Your task to perform on an android device: Open Maps and search for coffee Image 0: 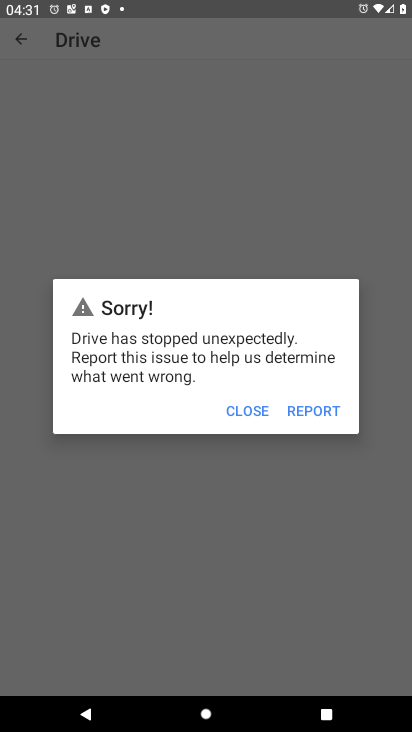
Step 0: press home button
Your task to perform on an android device: Open Maps and search for coffee Image 1: 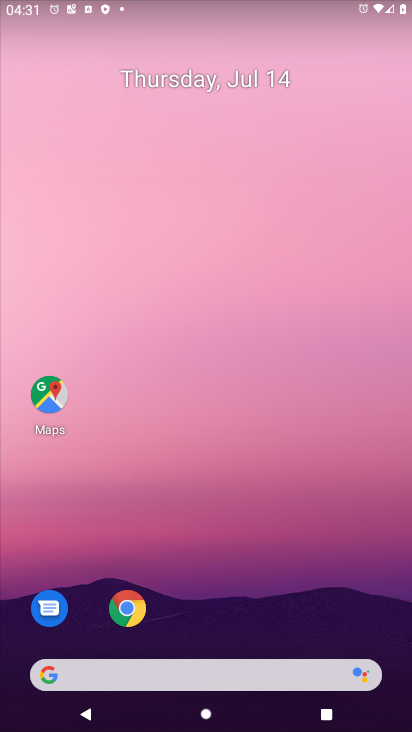
Step 1: click (48, 391)
Your task to perform on an android device: Open Maps and search for coffee Image 2: 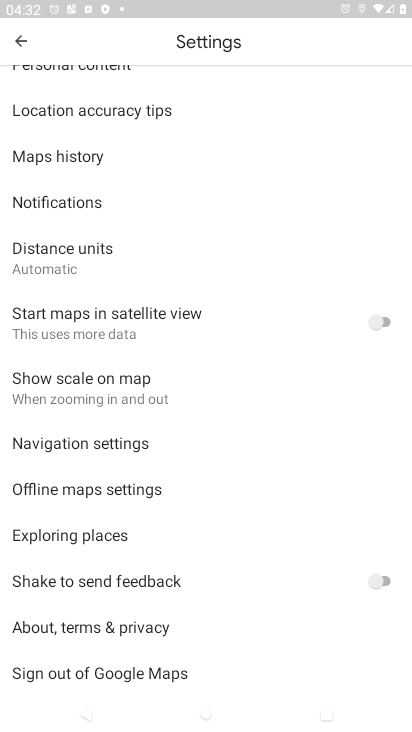
Step 2: press back button
Your task to perform on an android device: Open Maps and search for coffee Image 3: 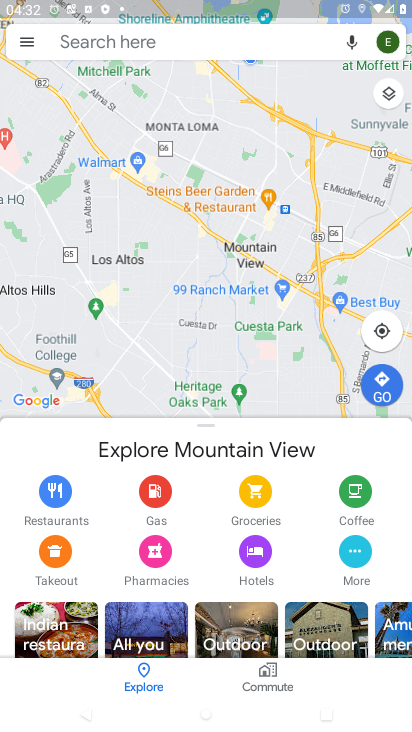
Step 3: click (129, 40)
Your task to perform on an android device: Open Maps and search for coffee Image 4: 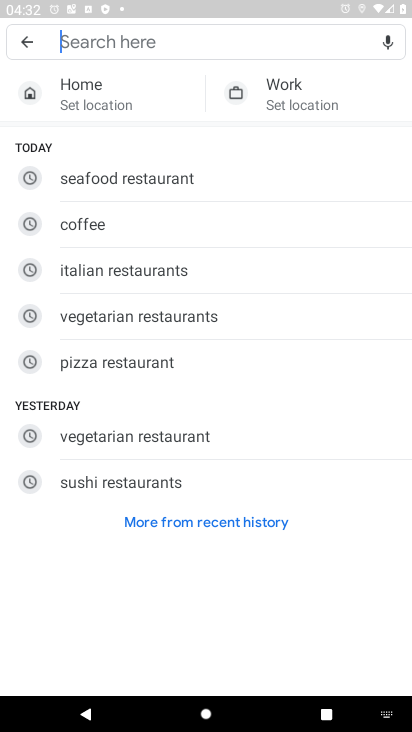
Step 4: type "coffee"
Your task to perform on an android device: Open Maps and search for coffee Image 5: 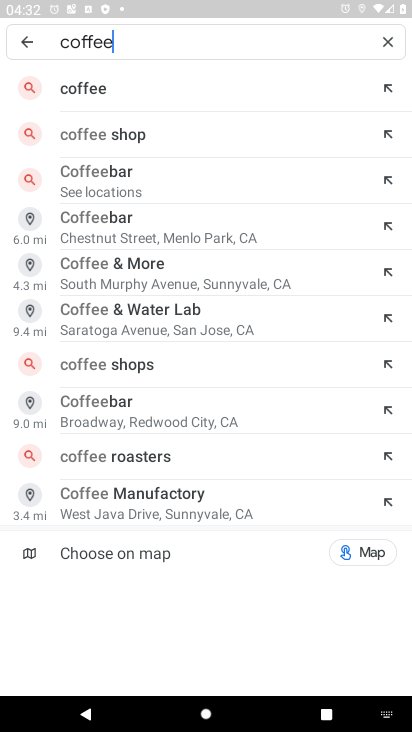
Step 5: click (83, 86)
Your task to perform on an android device: Open Maps and search for coffee Image 6: 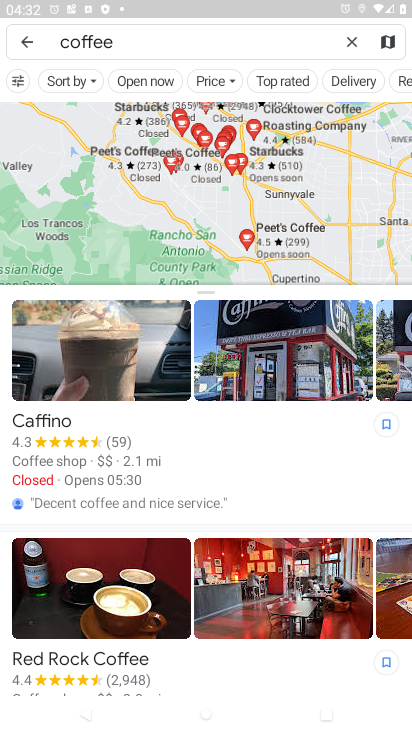
Step 6: task complete